Your task to perform on an android device: What is the capital of India? Image 0: 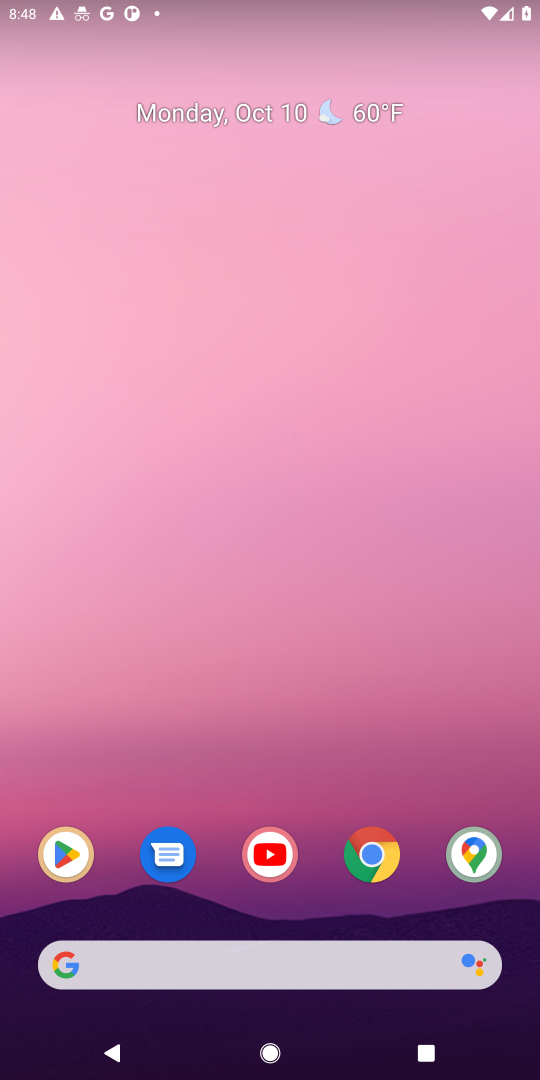
Step 0: click (370, 858)
Your task to perform on an android device: What is the capital of India? Image 1: 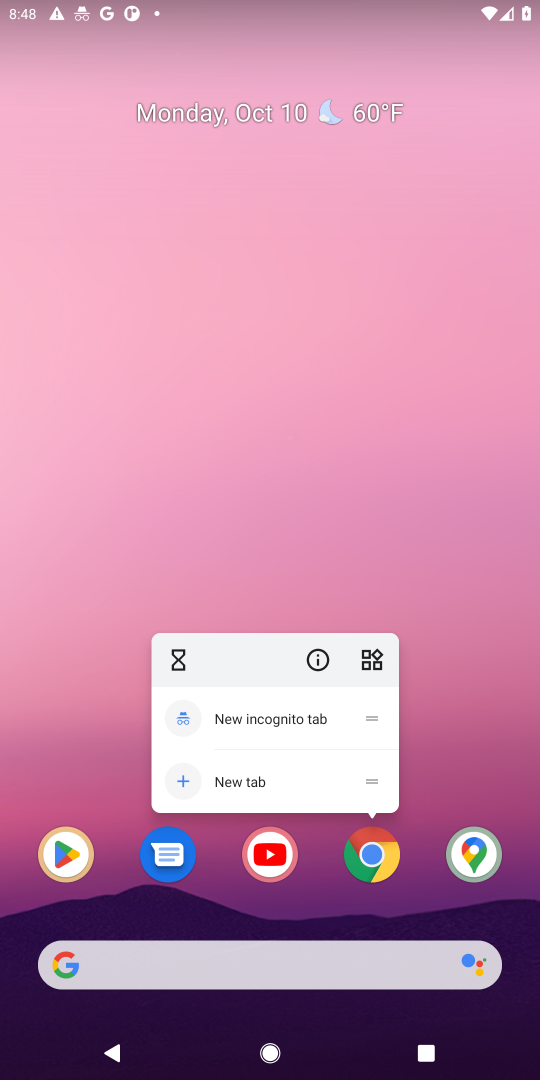
Step 1: click (370, 858)
Your task to perform on an android device: What is the capital of India? Image 2: 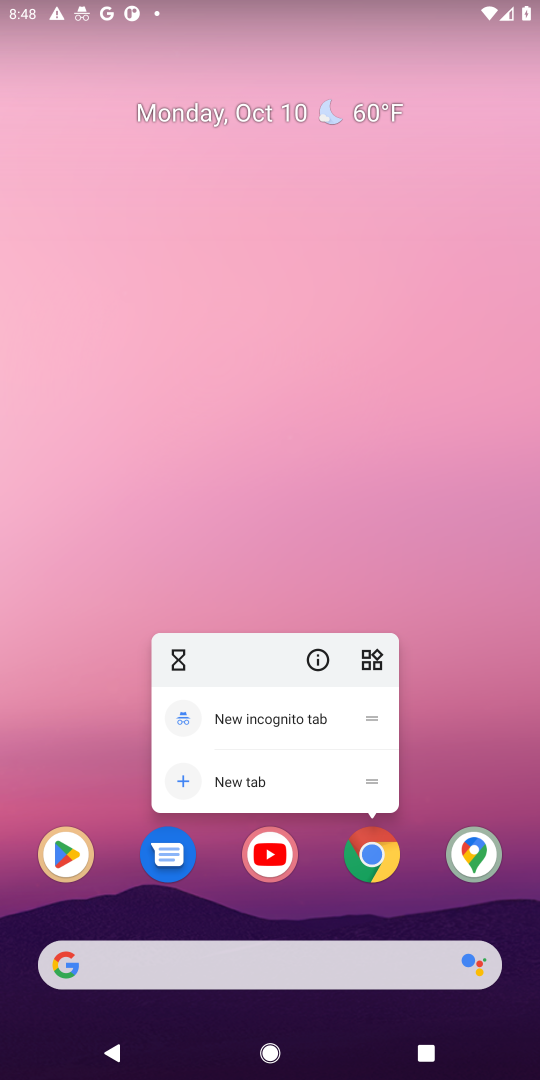
Step 2: click (380, 866)
Your task to perform on an android device: What is the capital of India? Image 3: 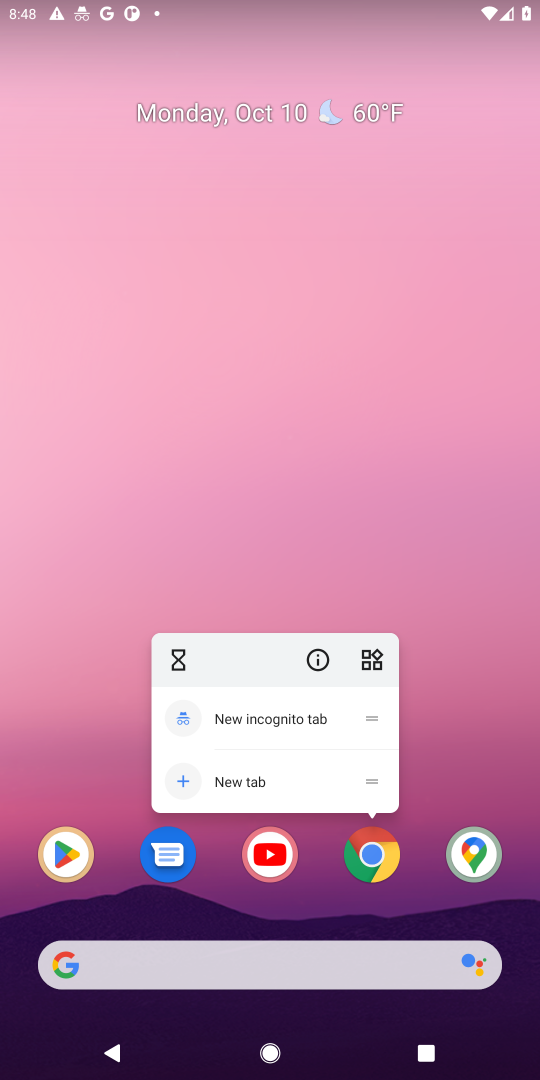
Step 3: click (370, 852)
Your task to perform on an android device: What is the capital of India? Image 4: 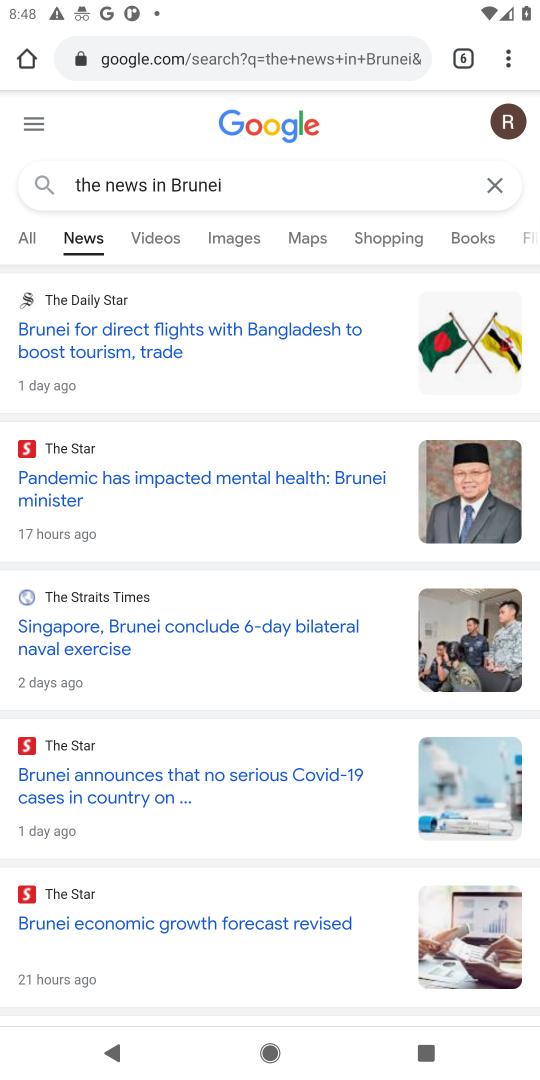
Step 4: click (362, 56)
Your task to perform on an android device: What is the capital of India? Image 5: 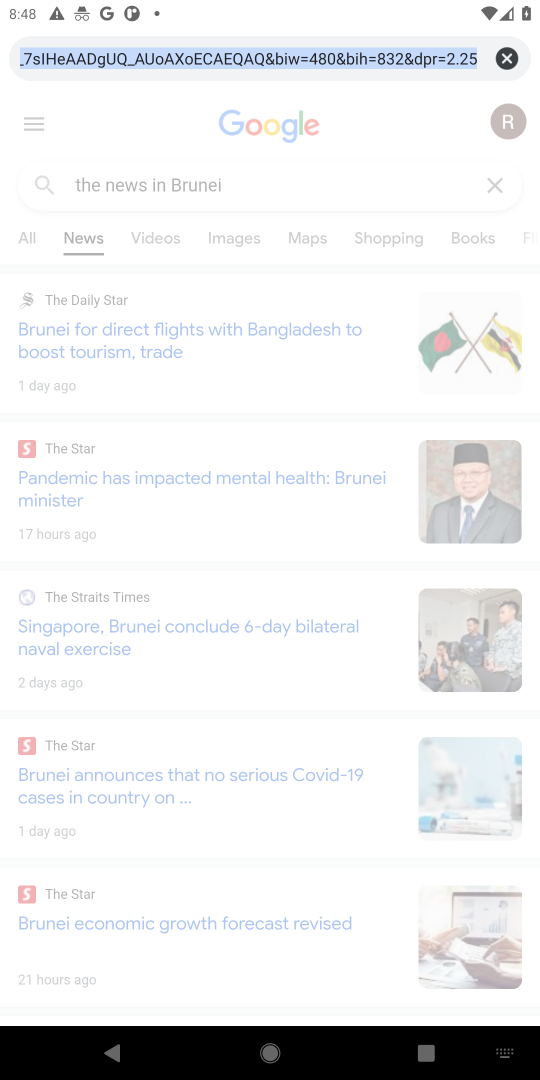
Step 5: click (503, 52)
Your task to perform on an android device: What is the capital of India? Image 6: 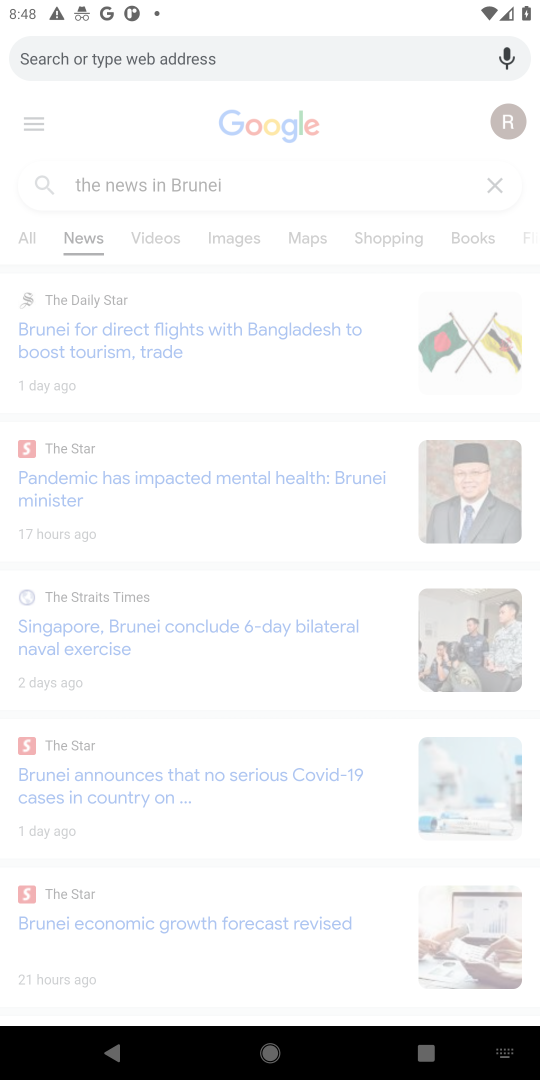
Step 6: type " capital of India"
Your task to perform on an android device: What is the capital of India? Image 7: 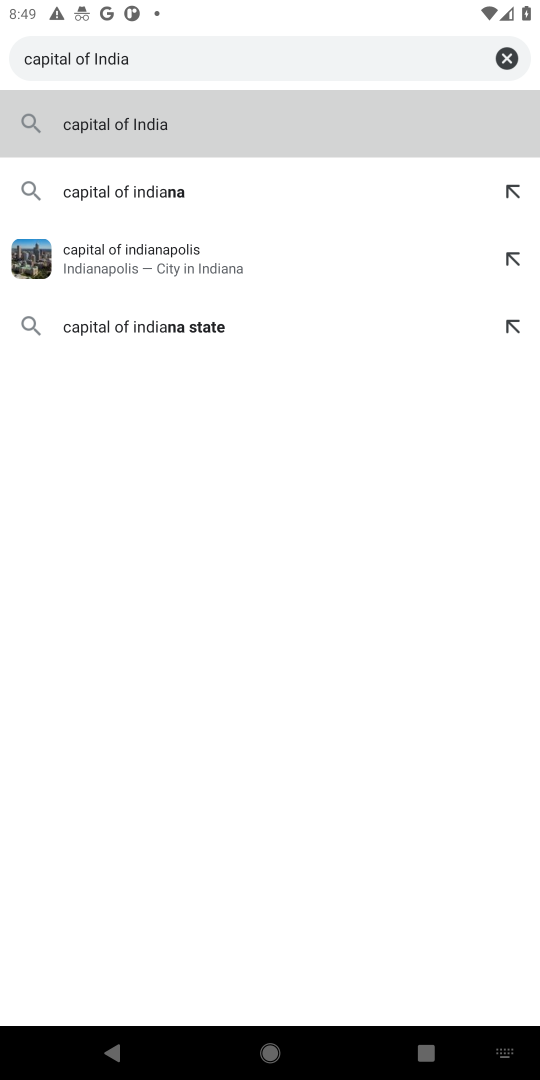
Step 7: click (140, 121)
Your task to perform on an android device: What is the capital of India? Image 8: 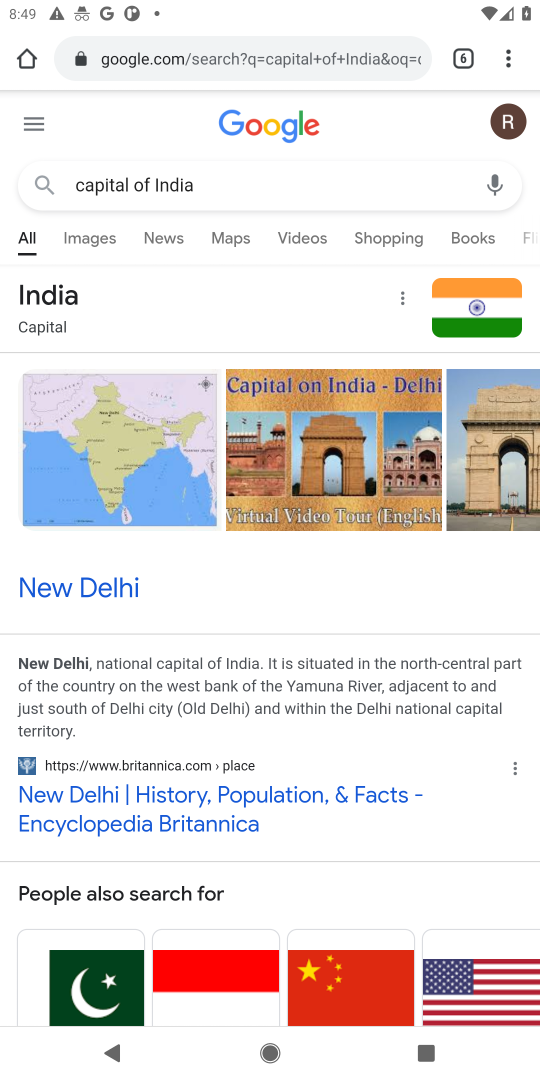
Step 8: task complete